Your task to perform on an android device: turn on improve location accuracy Image 0: 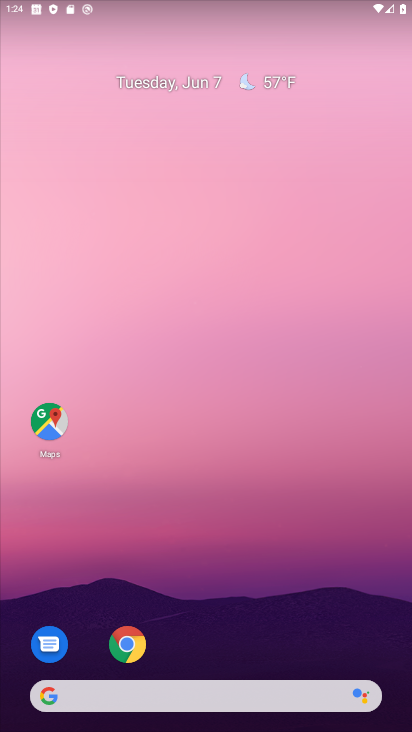
Step 0: drag from (247, 676) to (208, 12)
Your task to perform on an android device: turn on improve location accuracy Image 1: 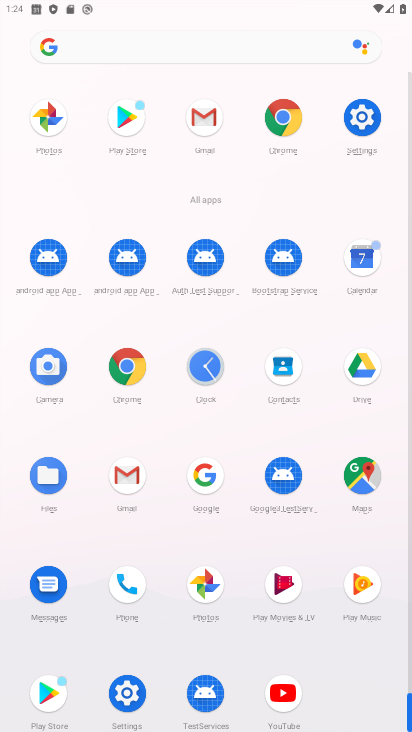
Step 1: click (371, 122)
Your task to perform on an android device: turn on improve location accuracy Image 2: 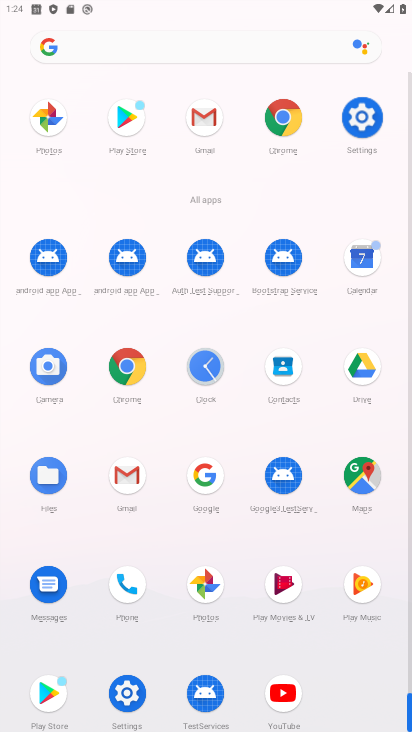
Step 2: click (371, 122)
Your task to perform on an android device: turn on improve location accuracy Image 3: 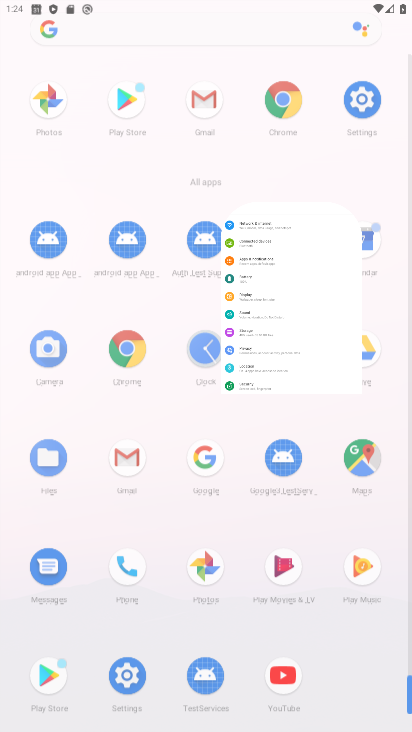
Step 3: click (371, 122)
Your task to perform on an android device: turn on improve location accuracy Image 4: 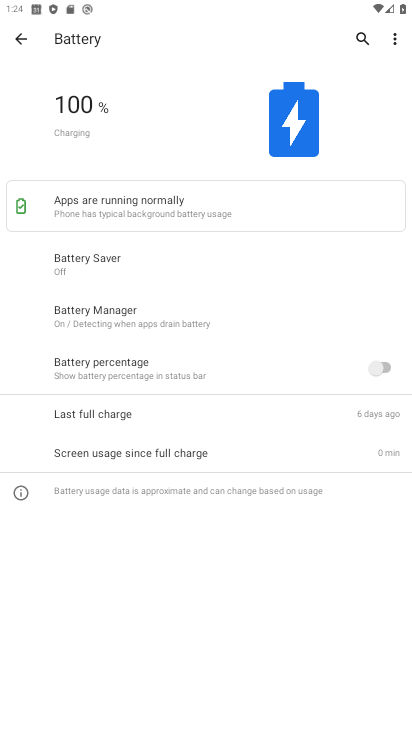
Step 4: click (77, 401)
Your task to perform on an android device: turn on improve location accuracy Image 5: 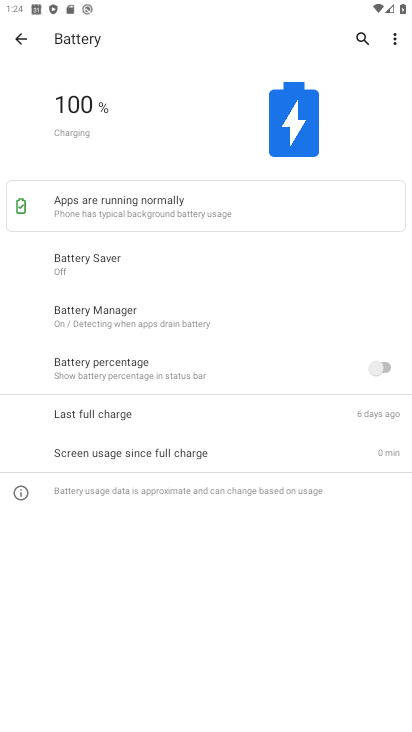
Step 5: click (77, 401)
Your task to perform on an android device: turn on improve location accuracy Image 6: 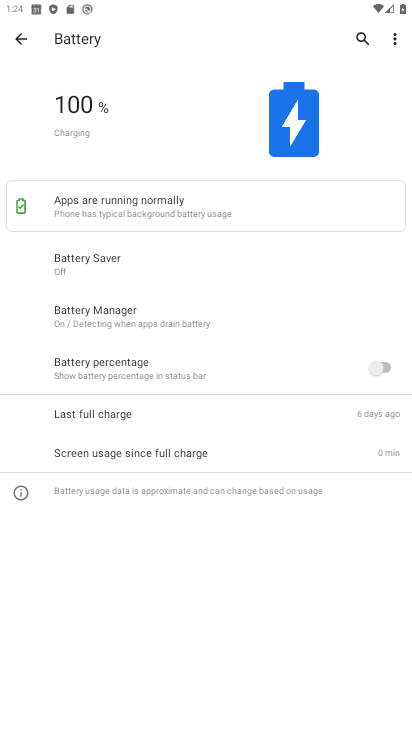
Step 6: click (79, 397)
Your task to perform on an android device: turn on improve location accuracy Image 7: 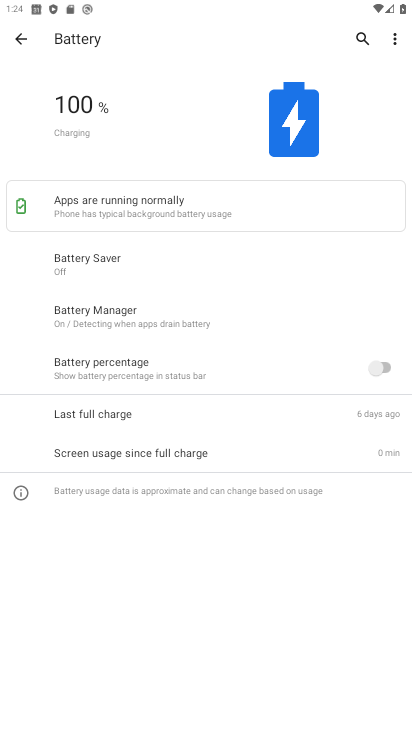
Step 7: click (82, 395)
Your task to perform on an android device: turn on improve location accuracy Image 8: 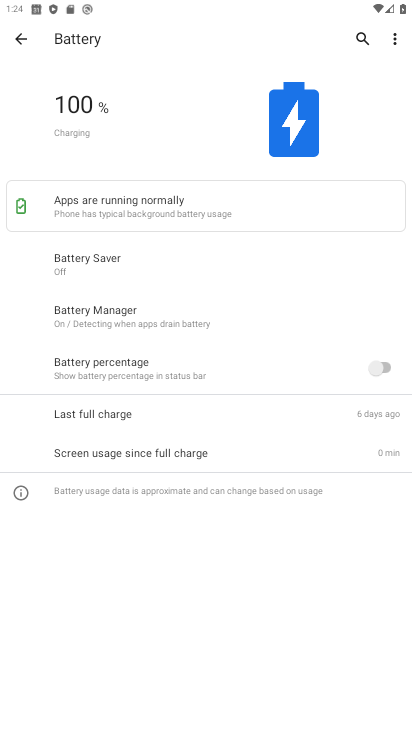
Step 8: click (97, 393)
Your task to perform on an android device: turn on improve location accuracy Image 9: 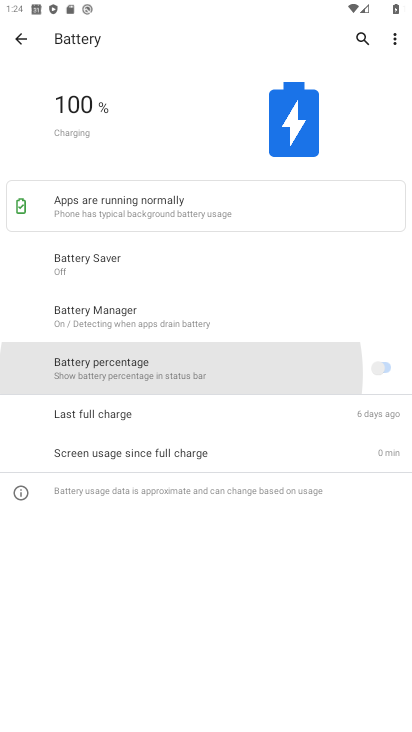
Step 9: click (103, 392)
Your task to perform on an android device: turn on improve location accuracy Image 10: 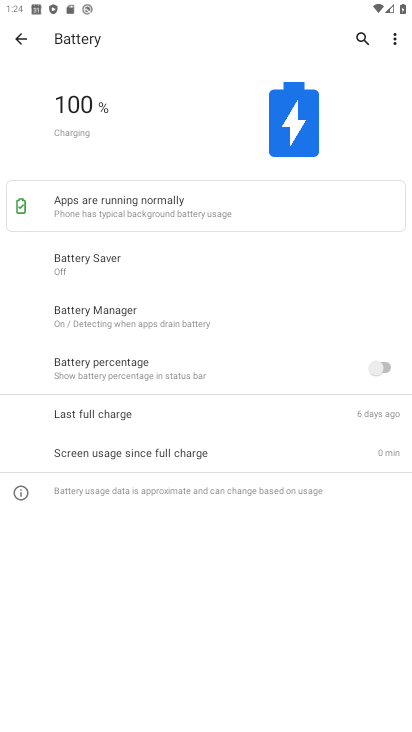
Step 10: click (24, 41)
Your task to perform on an android device: turn on improve location accuracy Image 11: 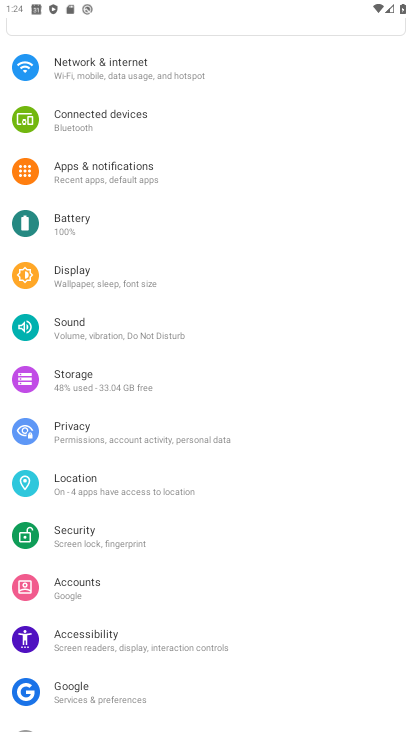
Step 11: click (80, 497)
Your task to perform on an android device: turn on improve location accuracy Image 12: 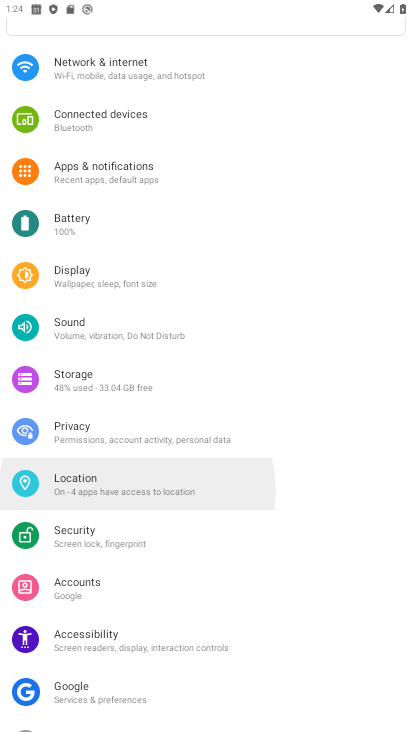
Step 12: click (80, 497)
Your task to perform on an android device: turn on improve location accuracy Image 13: 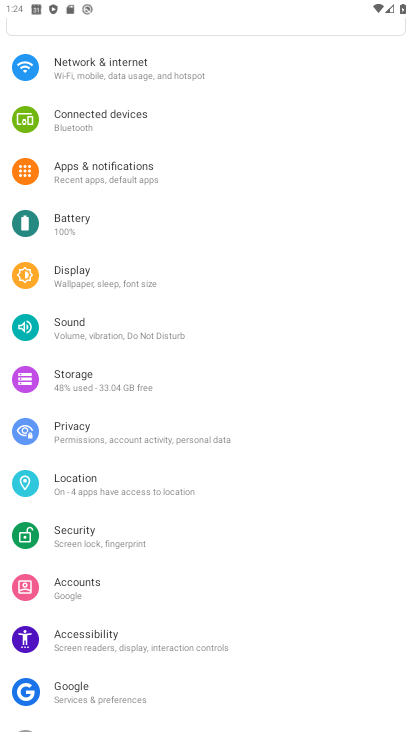
Step 13: click (80, 482)
Your task to perform on an android device: turn on improve location accuracy Image 14: 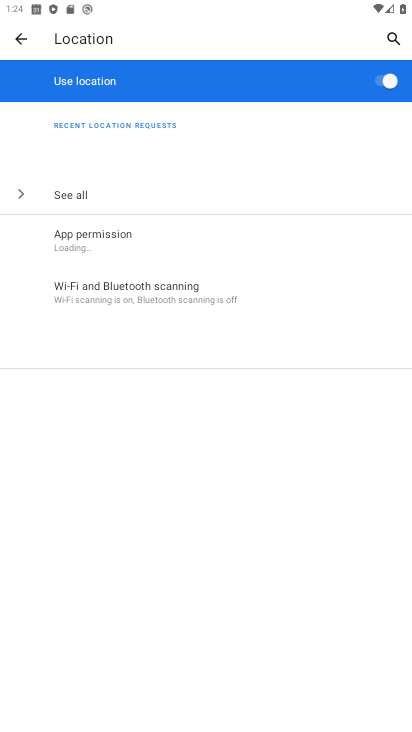
Step 14: click (77, 485)
Your task to perform on an android device: turn on improve location accuracy Image 15: 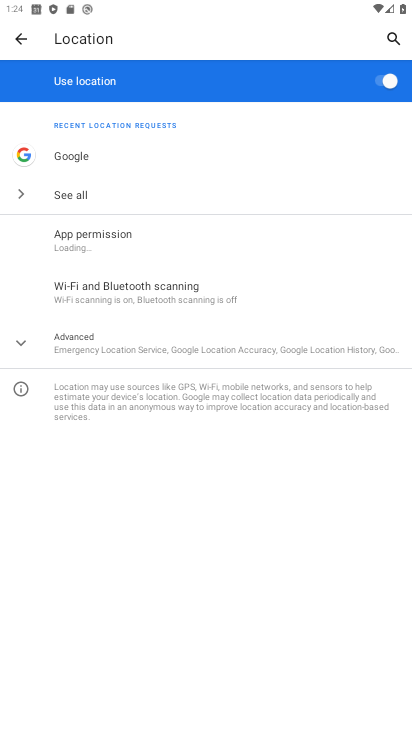
Step 15: click (172, 348)
Your task to perform on an android device: turn on improve location accuracy Image 16: 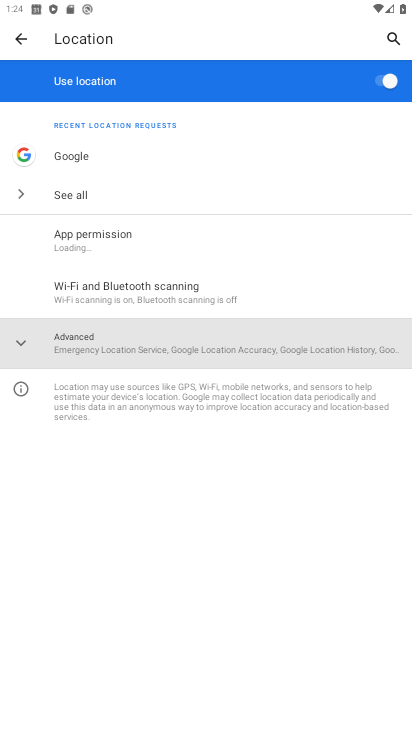
Step 16: click (176, 347)
Your task to perform on an android device: turn on improve location accuracy Image 17: 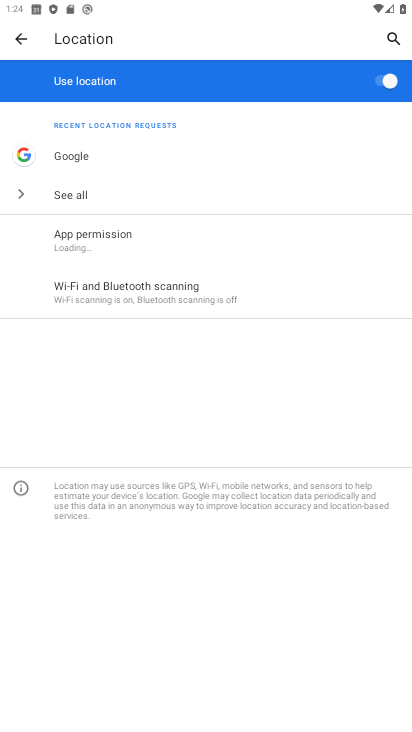
Step 17: click (177, 347)
Your task to perform on an android device: turn on improve location accuracy Image 18: 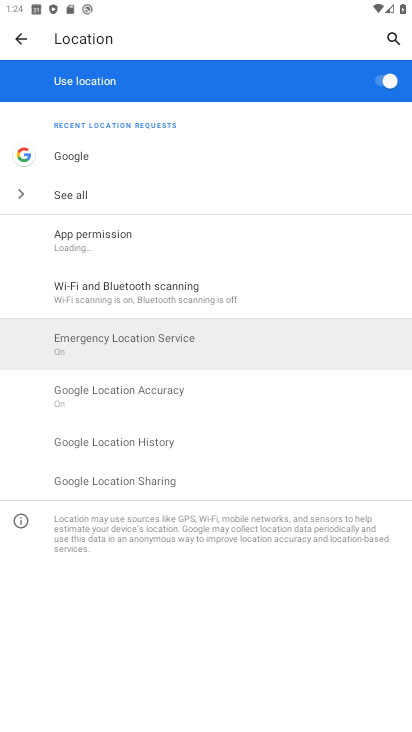
Step 18: click (177, 347)
Your task to perform on an android device: turn on improve location accuracy Image 19: 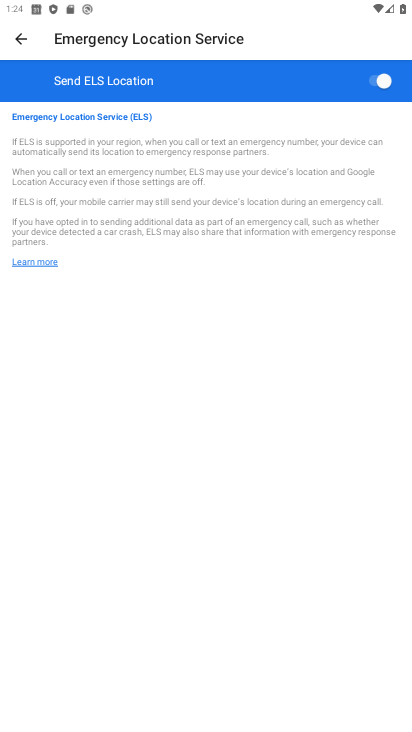
Step 19: click (26, 28)
Your task to perform on an android device: turn on improve location accuracy Image 20: 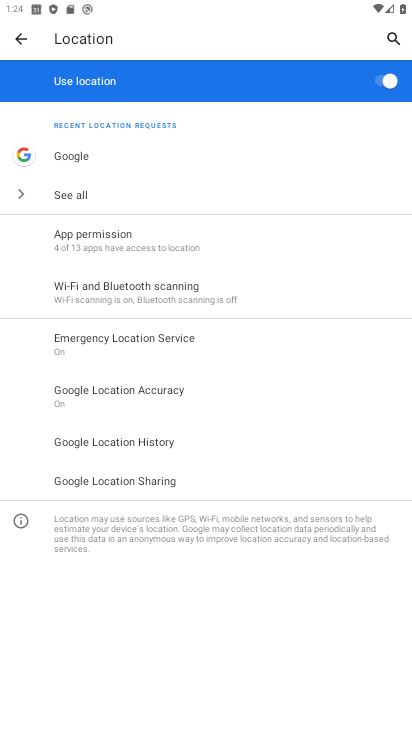
Step 20: click (117, 381)
Your task to perform on an android device: turn on improve location accuracy Image 21: 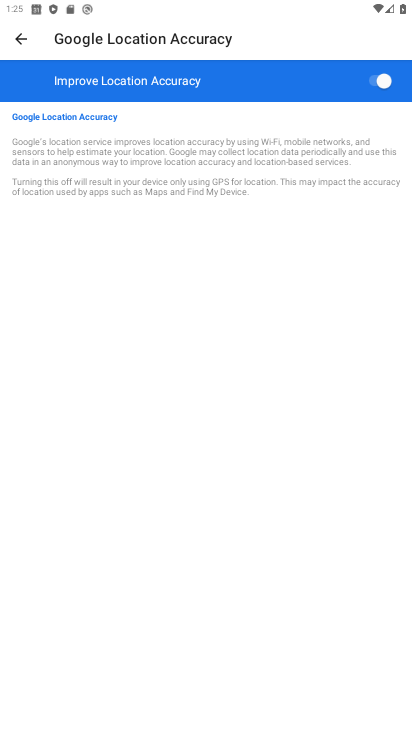
Step 21: task complete